Your task to perform on an android device: What is the recent news? Image 0: 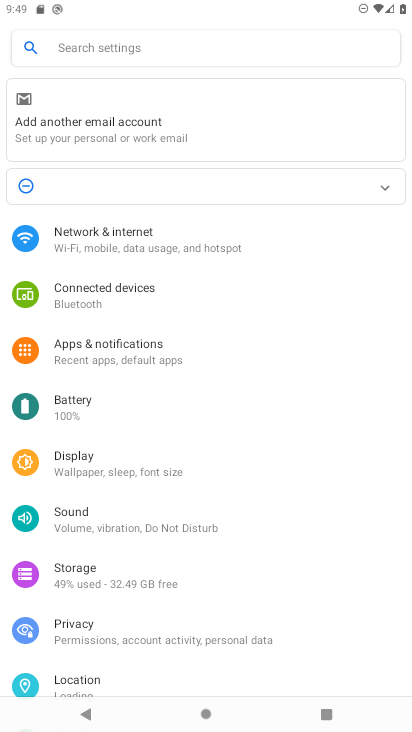
Step 0: press home button
Your task to perform on an android device: What is the recent news? Image 1: 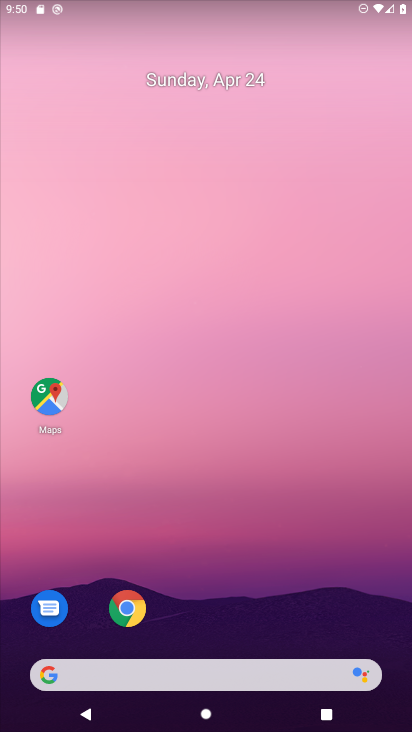
Step 1: click (242, 682)
Your task to perform on an android device: What is the recent news? Image 2: 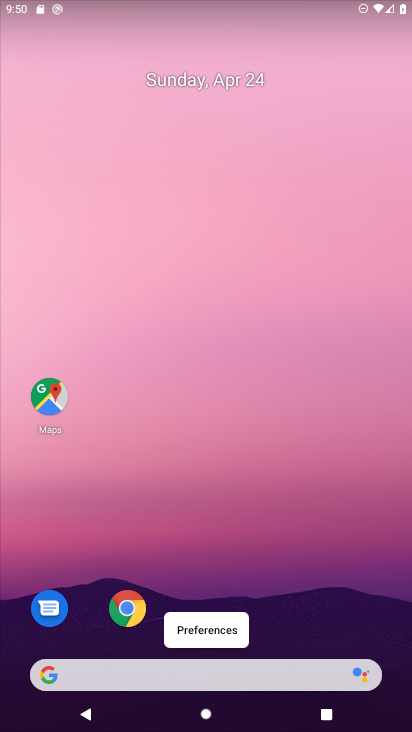
Step 2: drag from (238, 710) to (236, 21)
Your task to perform on an android device: What is the recent news? Image 3: 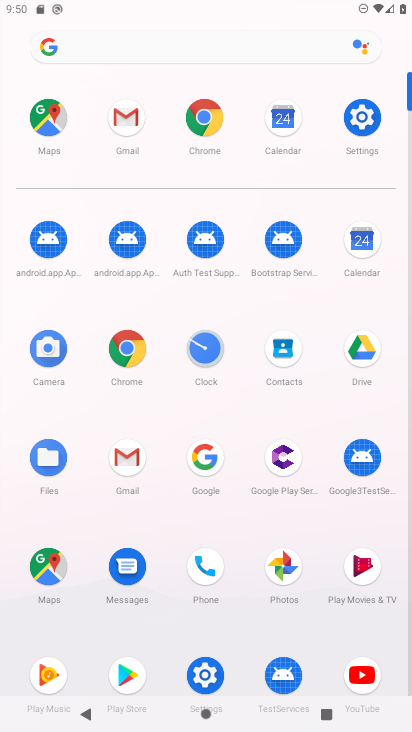
Step 3: click (146, 46)
Your task to perform on an android device: What is the recent news? Image 4: 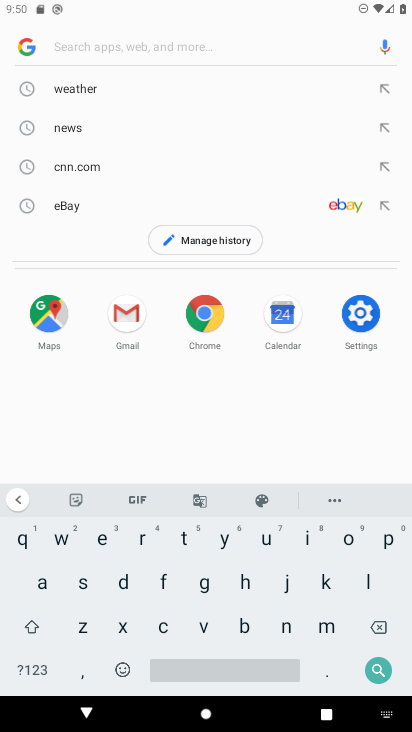
Step 4: click (144, 539)
Your task to perform on an android device: What is the recent news? Image 5: 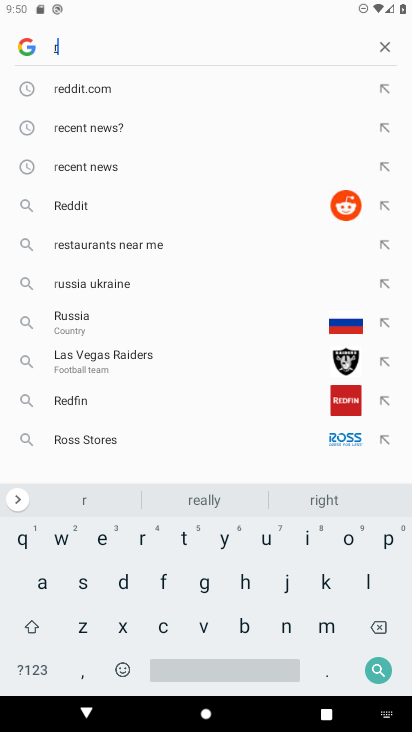
Step 5: click (122, 174)
Your task to perform on an android device: What is the recent news? Image 6: 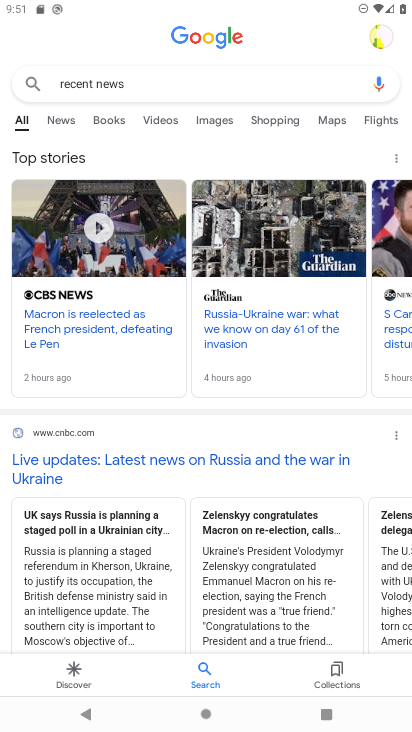
Step 6: task complete